Your task to perform on an android device: turn off data saver in the chrome app Image 0: 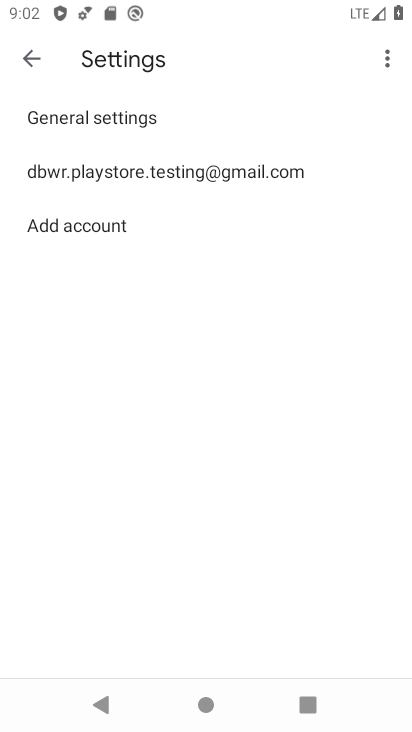
Step 0: press home button
Your task to perform on an android device: turn off data saver in the chrome app Image 1: 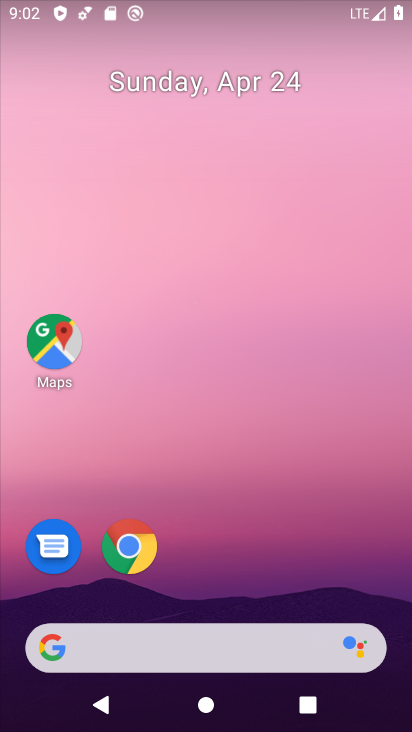
Step 1: click (123, 558)
Your task to perform on an android device: turn off data saver in the chrome app Image 2: 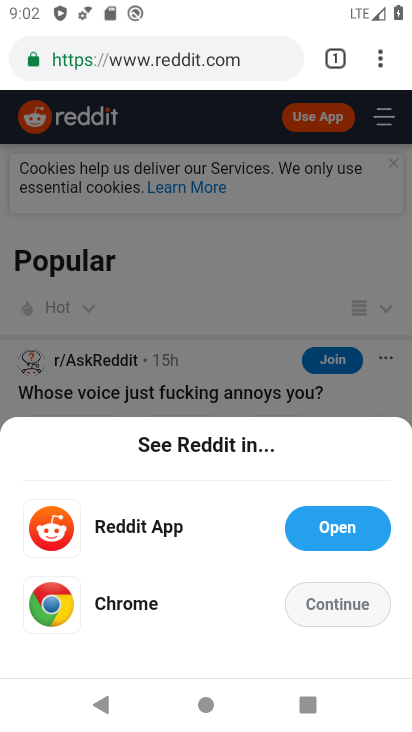
Step 2: click (378, 65)
Your task to perform on an android device: turn off data saver in the chrome app Image 3: 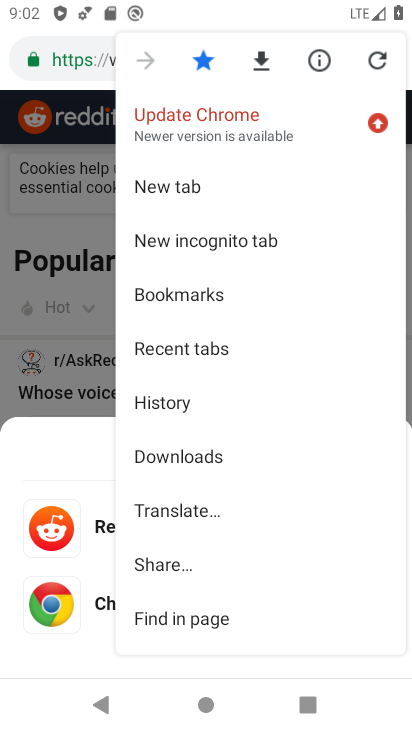
Step 3: drag from (200, 610) to (212, 219)
Your task to perform on an android device: turn off data saver in the chrome app Image 4: 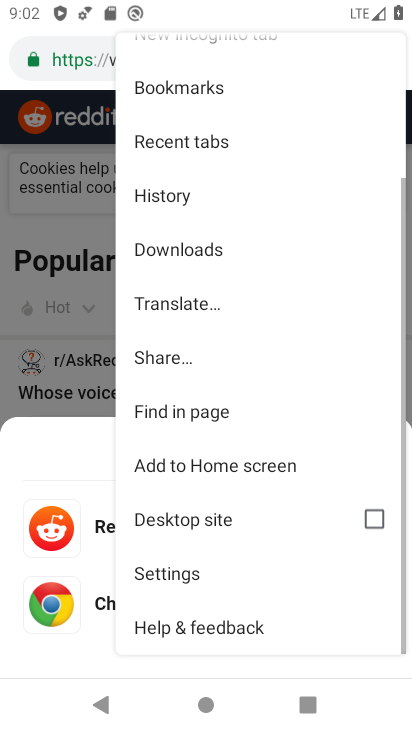
Step 4: click (233, 558)
Your task to perform on an android device: turn off data saver in the chrome app Image 5: 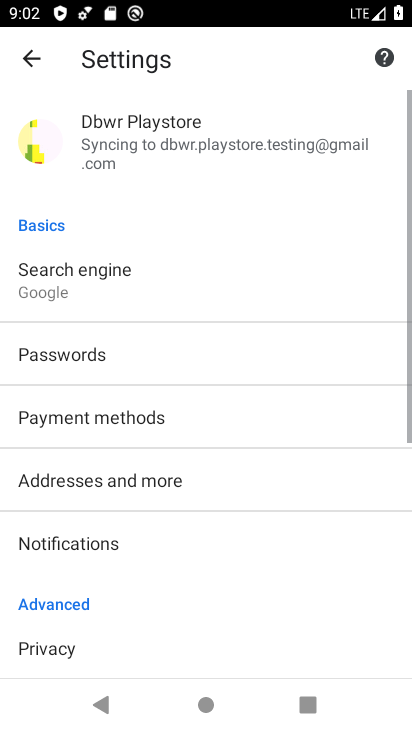
Step 5: drag from (235, 589) to (225, 289)
Your task to perform on an android device: turn off data saver in the chrome app Image 6: 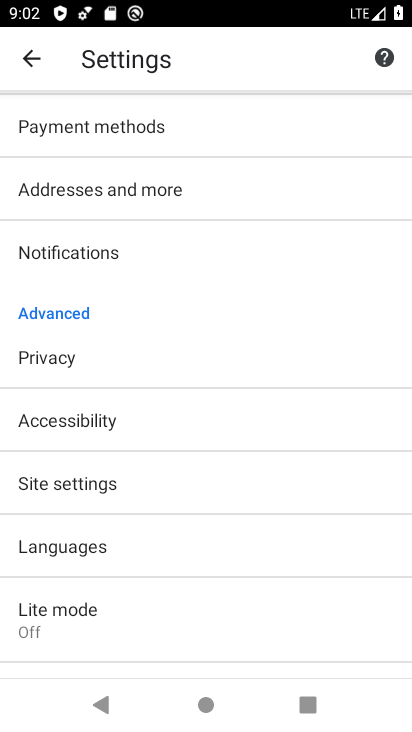
Step 6: click (136, 605)
Your task to perform on an android device: turn off data saver in the chrome app Image 7: 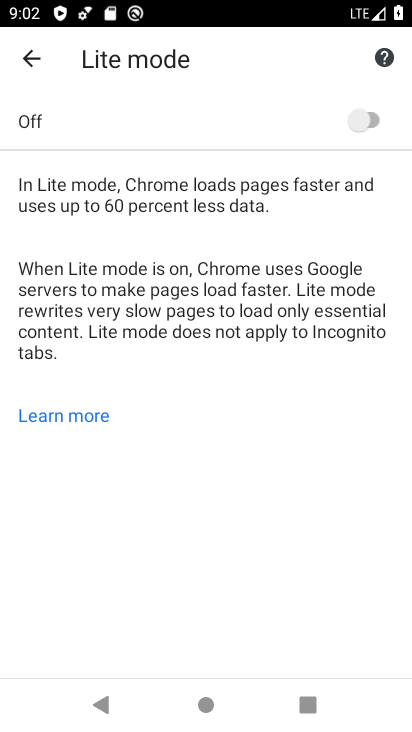
Step 7: task complete